Your task to perform on an android device: turn off sleep mode Image 0: 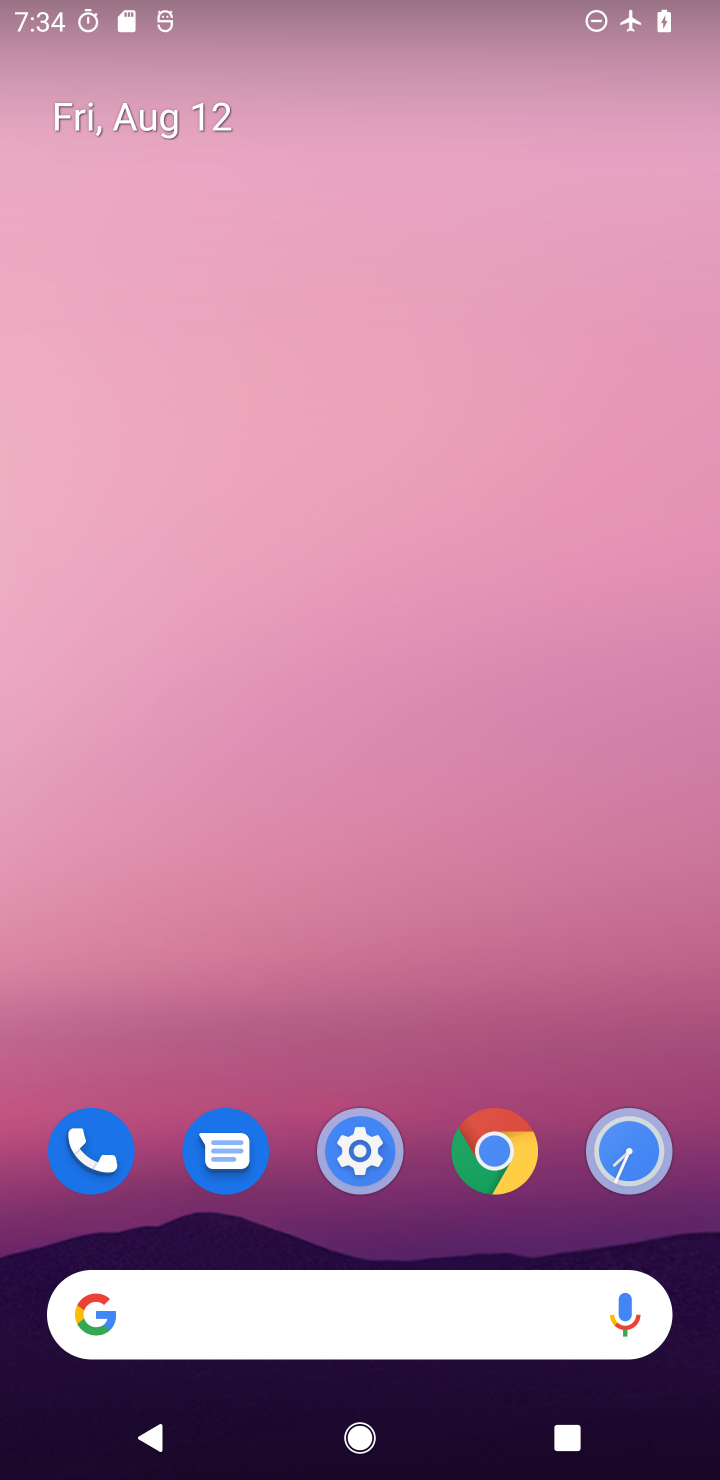
Step 0: drag from (503, 960) to (504, 56)
Your task to perform on an android device: turn off sleep mode Image 1: 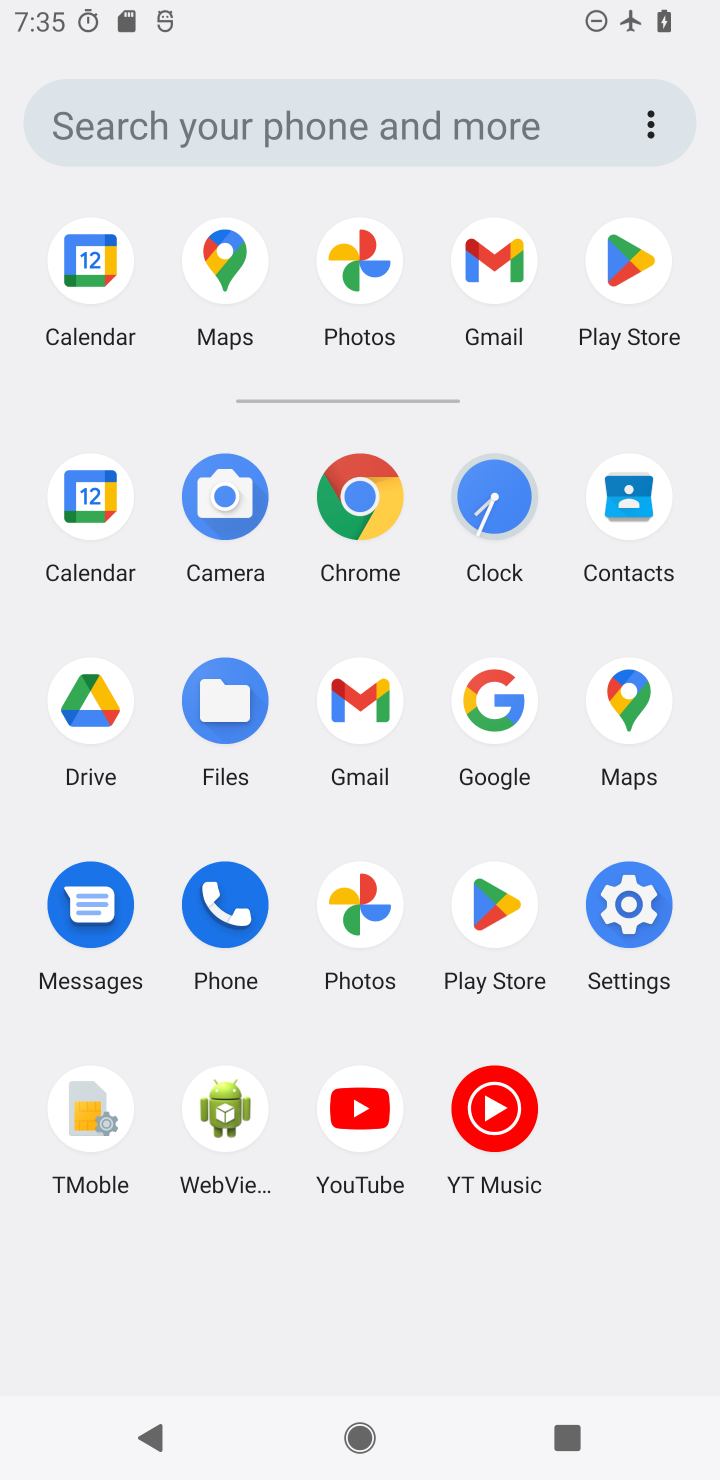
Step 1: click (623, 892)
Your task to perform on an android device: turn off sleep mode Image 2: 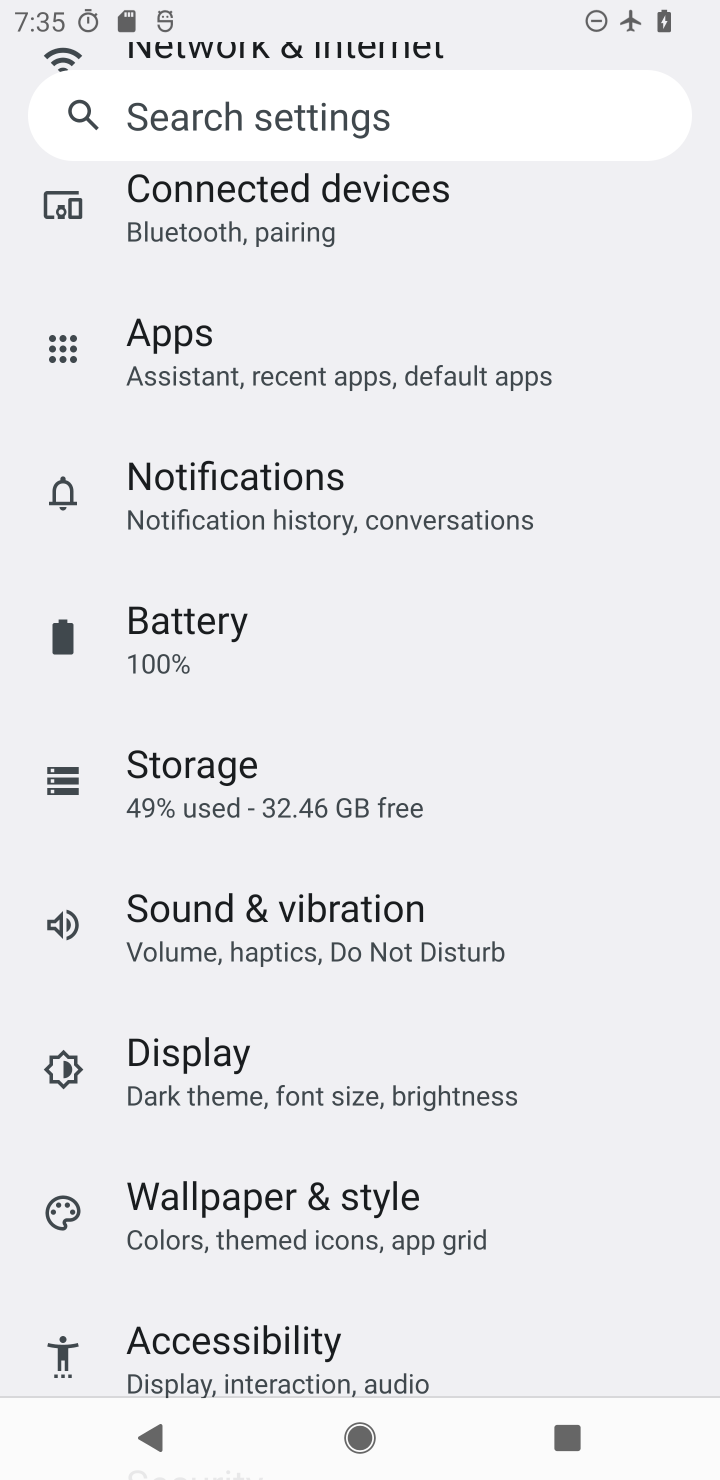
Step 2: drag from (580, 318) to (626, 493)
Your task to perform on an android device: turn off sleep mode Image 3: 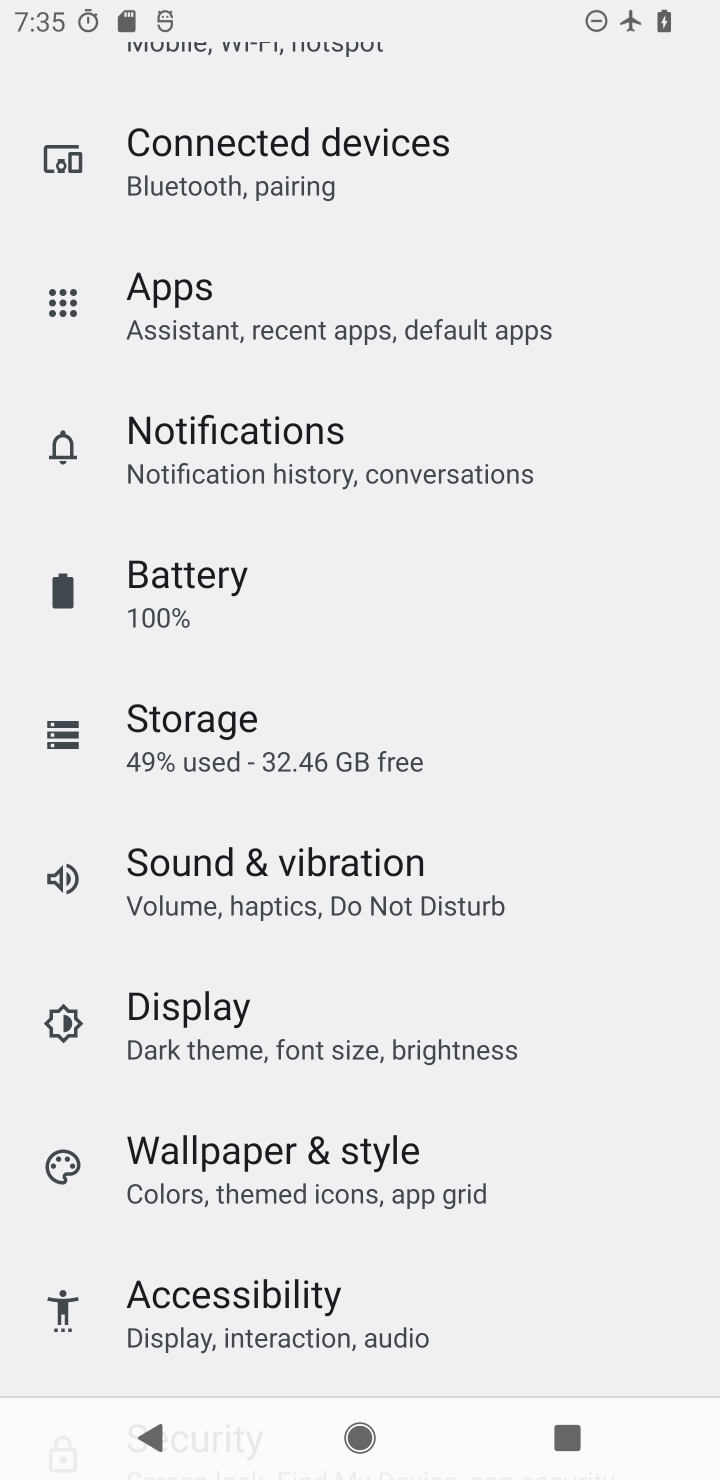
Step 3: click (246, 998)
Your task to perform on an android device: turn off sleep mode Image 4: 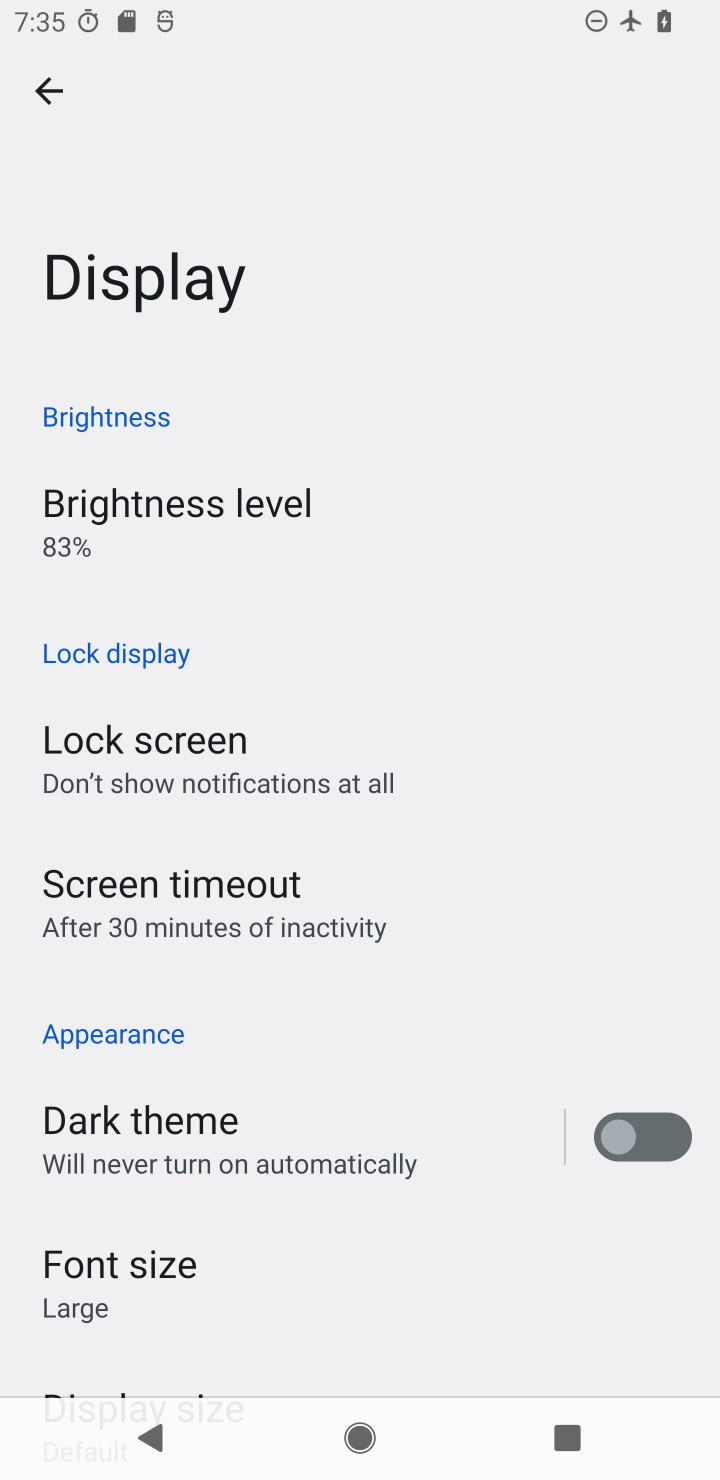
Step 4: click (251, 886)
Your task to perform on an android device: turn off sleep mode Image 5: 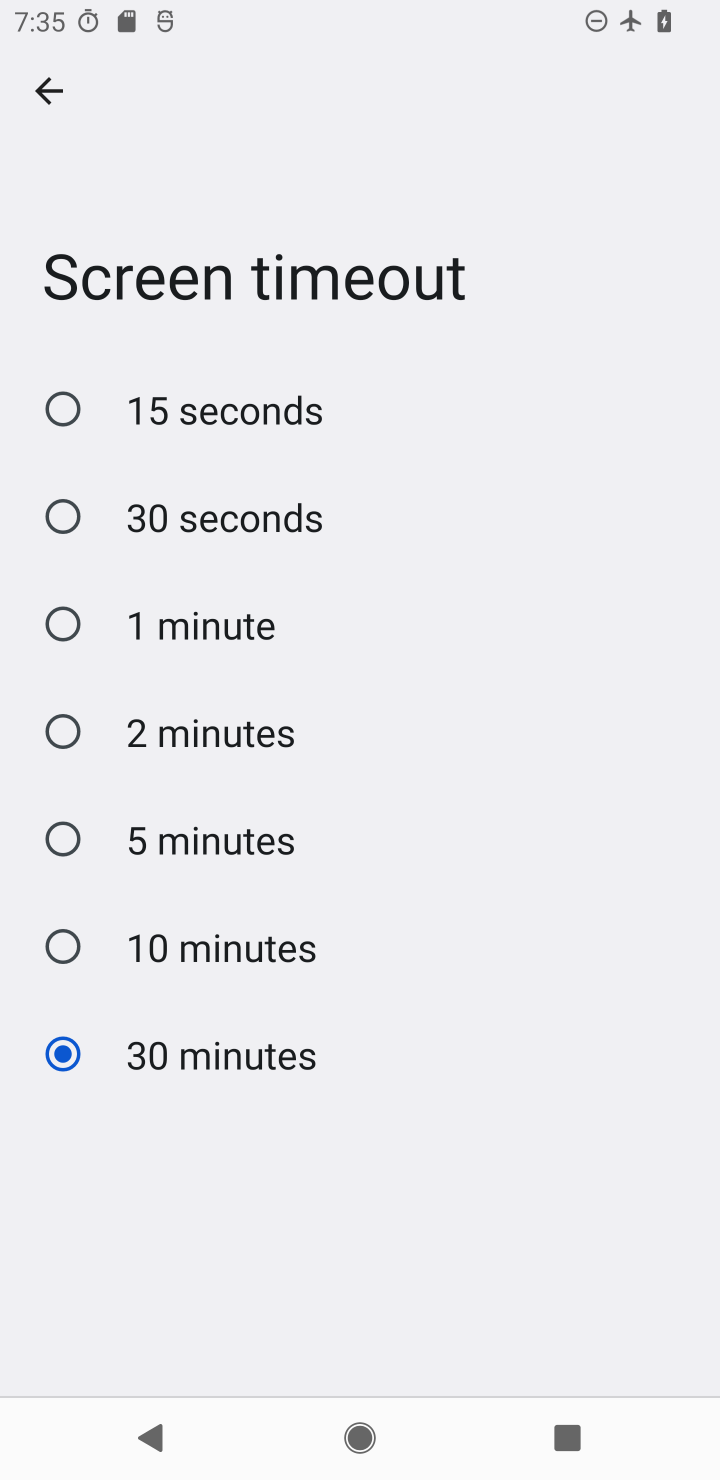
Step 5: task complete